Your task to perform on an android device: Open accessibility settings Image 0: 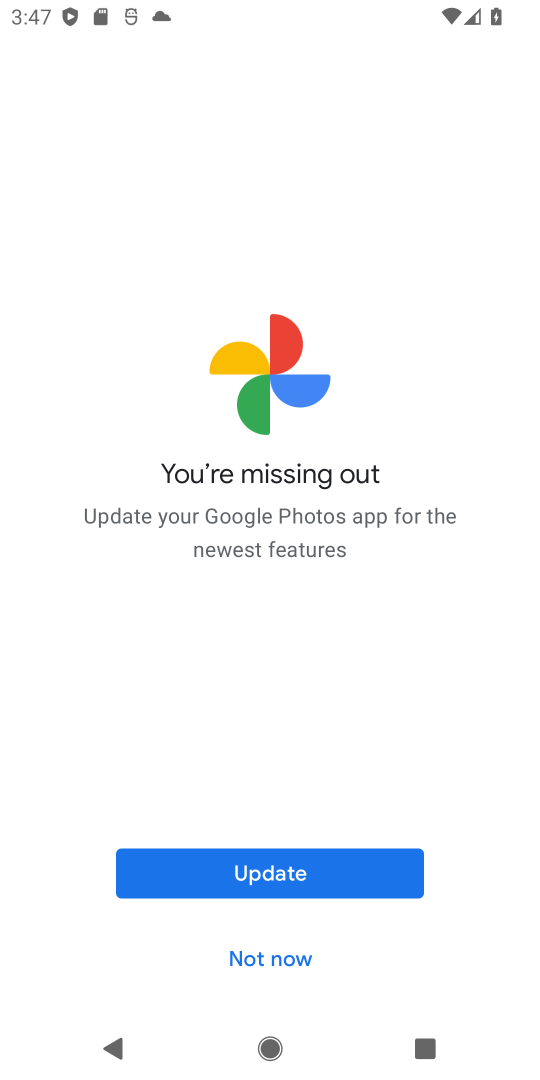
Step 0: press home button
Your task to perform on an android device: Open accessibility settings Image 1: 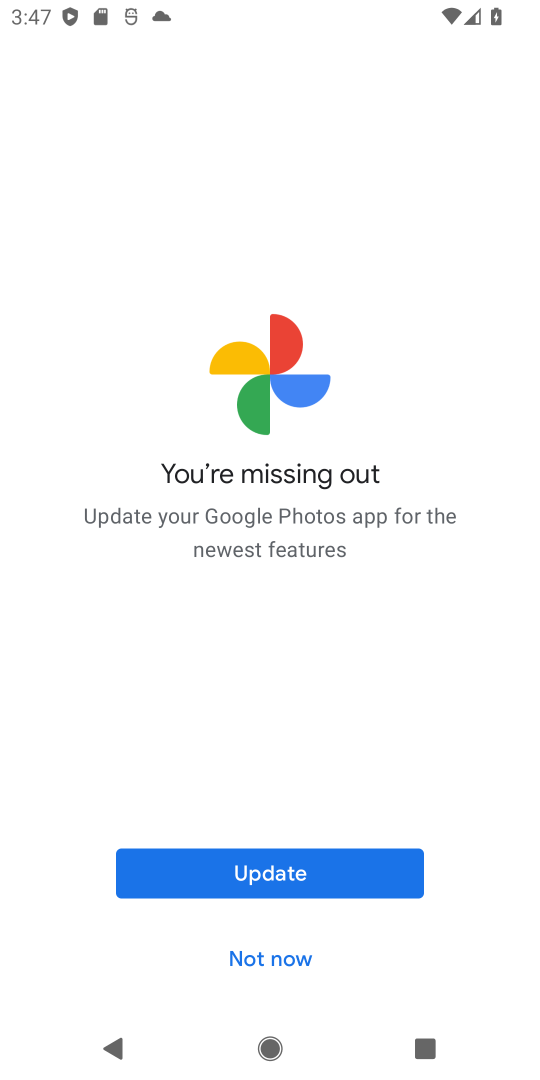
Step 1: press home button
Your task to perform on an android device: Open accessibility settings Image 2: 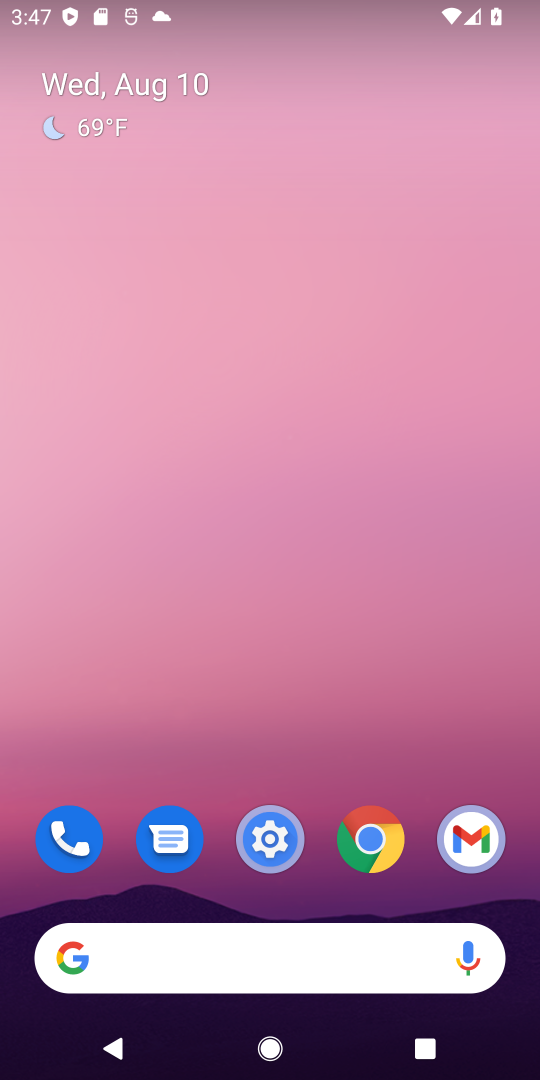
Step 2: click (276, 833)
Your task to perform on an android device: Open accessibility settings Image 3: 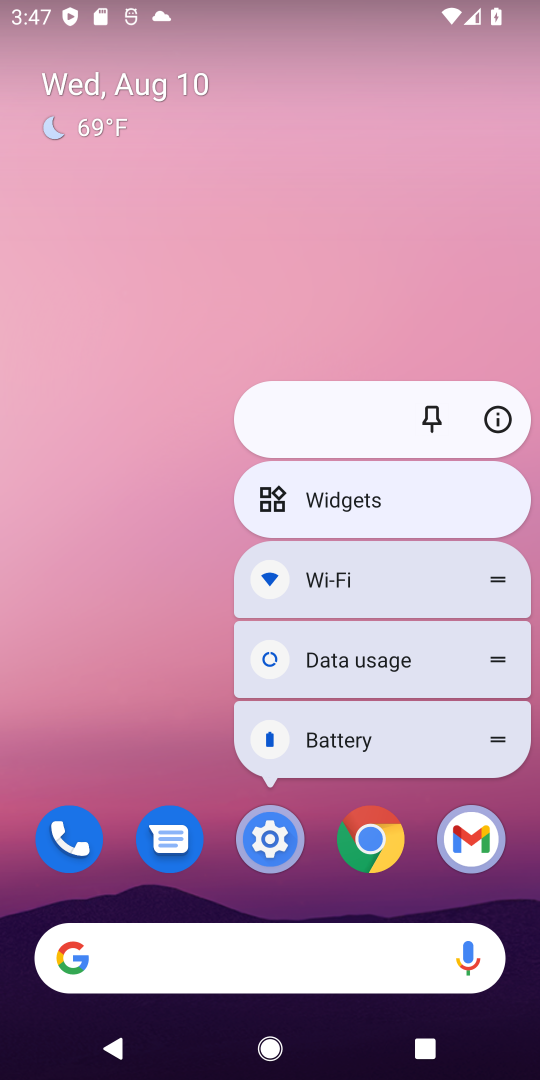
Step 3: click (269, 840)
Your task to perform on an android device: Open accessibility settings Image 4: 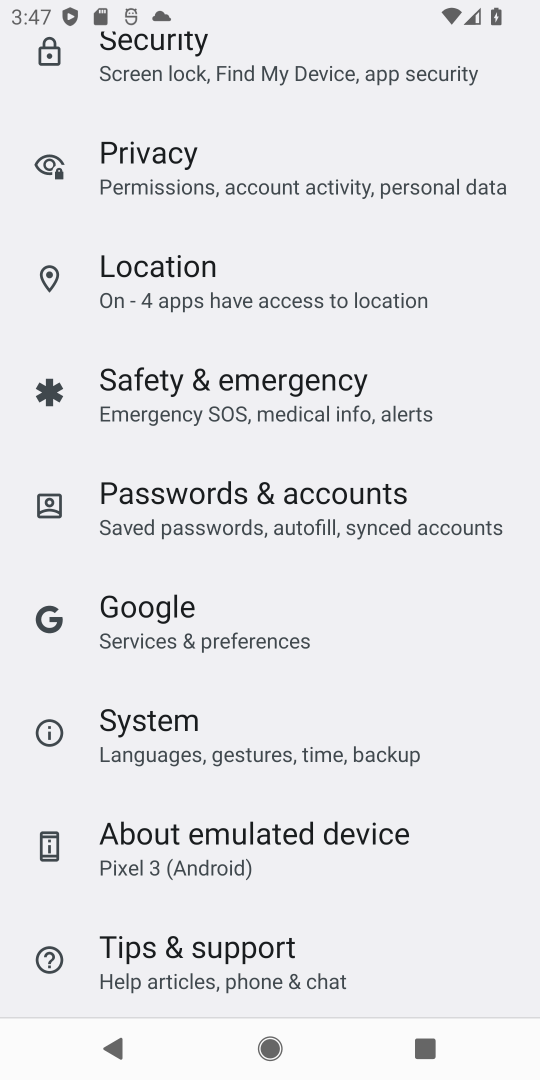
Step 4: drag from (349, 115) to (317, 918)
Your task to perform on an android device: Open accessibility settings Image 5: 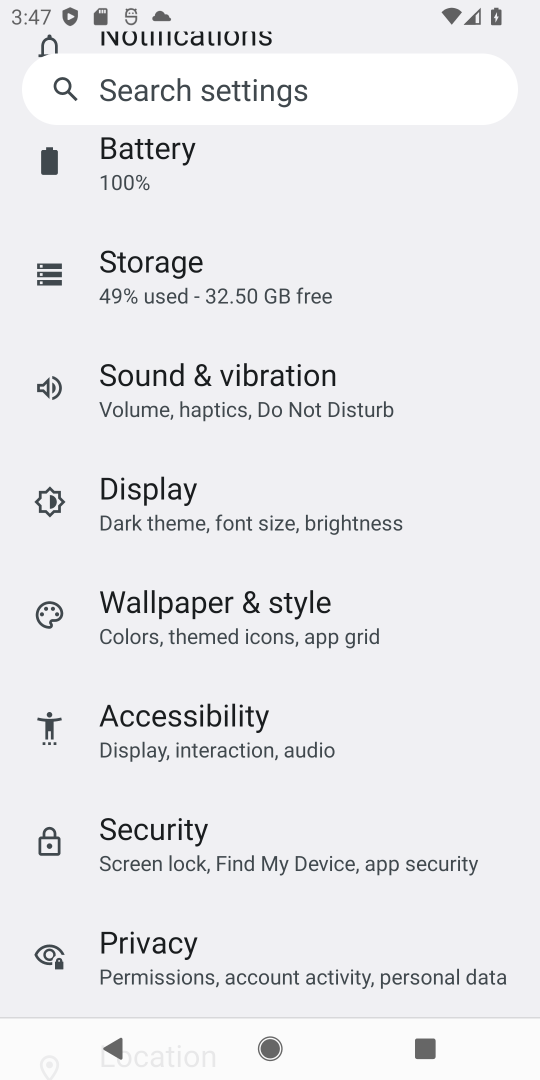
Step 5: click (269, 723)
Your task to perform on an android device: Open accessibility settings Image 6: 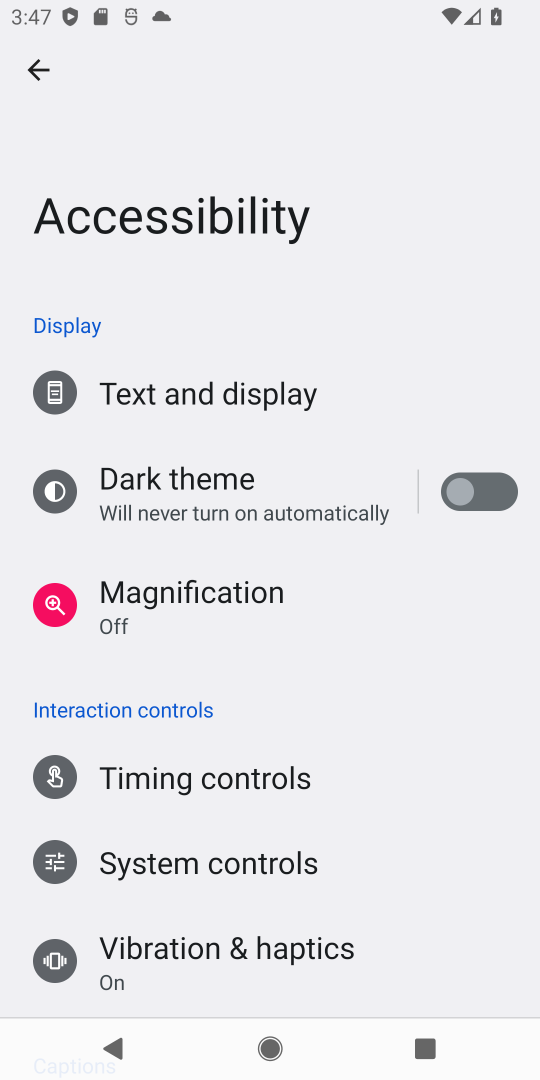
Step 6: task complete